Your task to perform on an android device: empty trash in the gmail app Image 0: 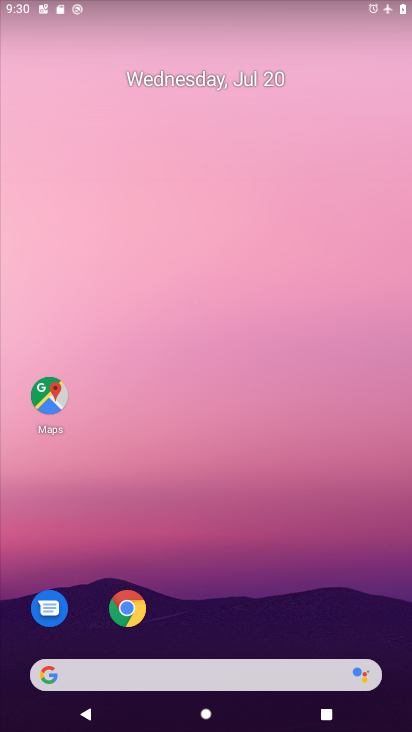
Step 0: drag from (227, 553) to (221, 261)
Your task to perform on an android device: empty trash in the gmail app Image 1: 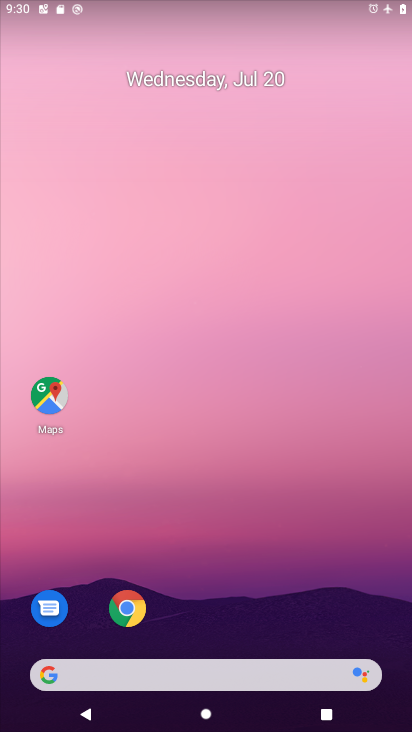
Step 1: drag from (249, 627) to (320, 42)
Your task to perform on an android device: empty trash in the gmail app Image 2: 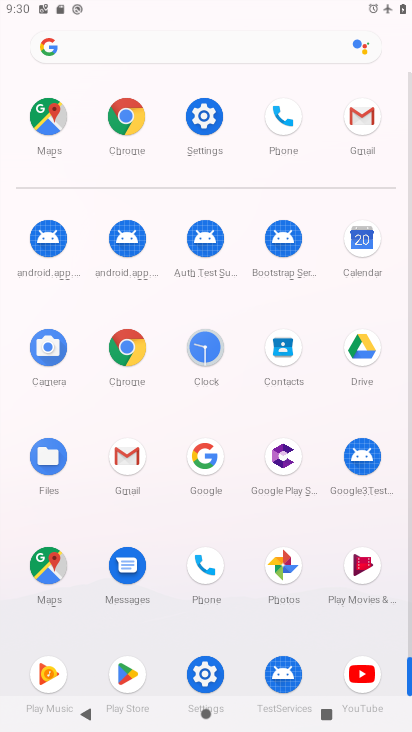
Step 2: click (365, 107)
Your task to perform on an android device: empty trash in the gmail app Image 3: 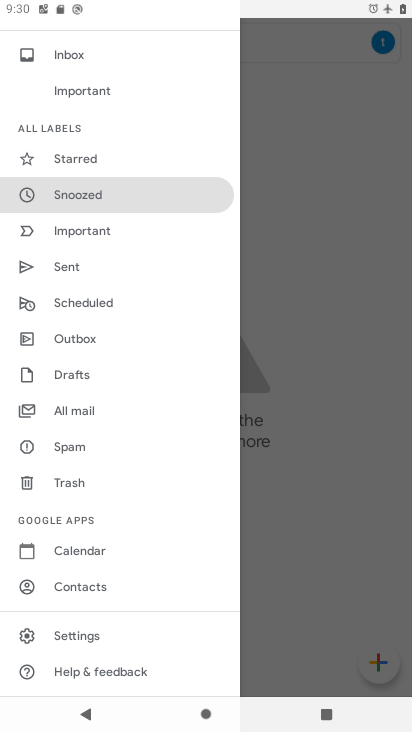
Step 3: click (81, 479)
Your task to perform on an android device: empty trash in the gmail app Image 4: 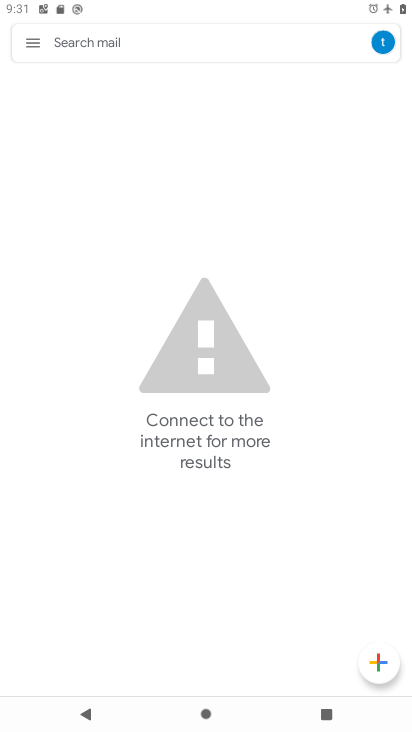
Step 4: click (30, 48)
Your task to perform on an android device: empty trash in the gmail app Image 5: 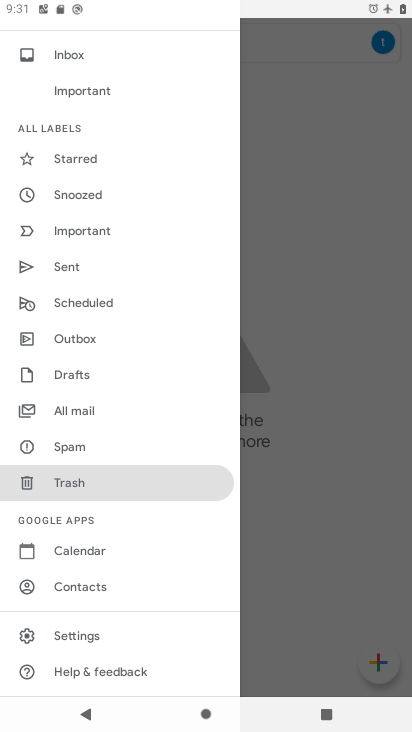
Step 5: task complete